Your task to perform on an android device: Go to ESPN.com Image 0: 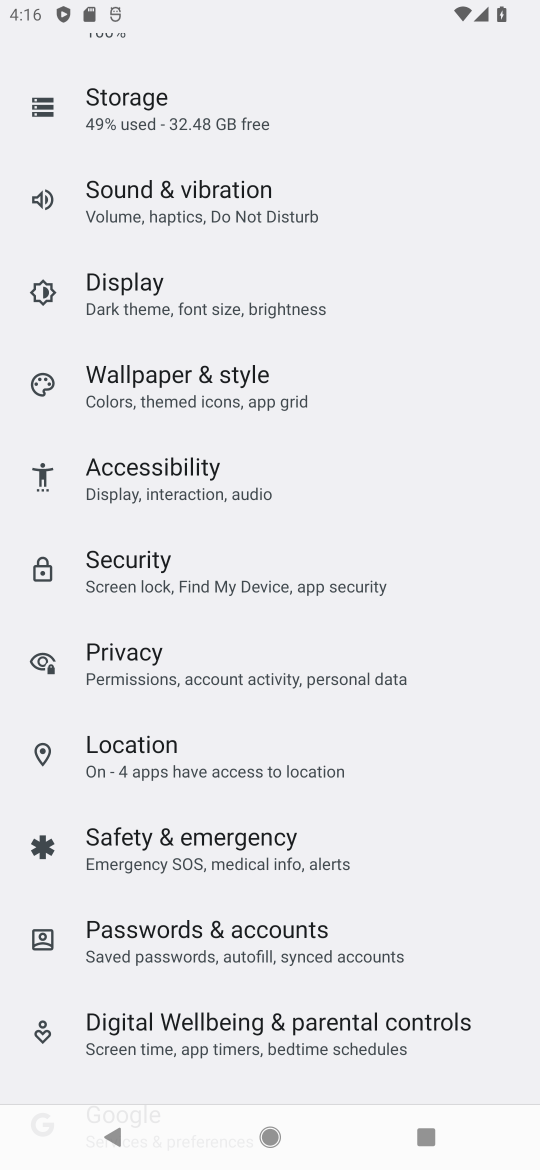
Step 0: press home button
Your task to perform on an android device: Go to ESPN.com Image 1: 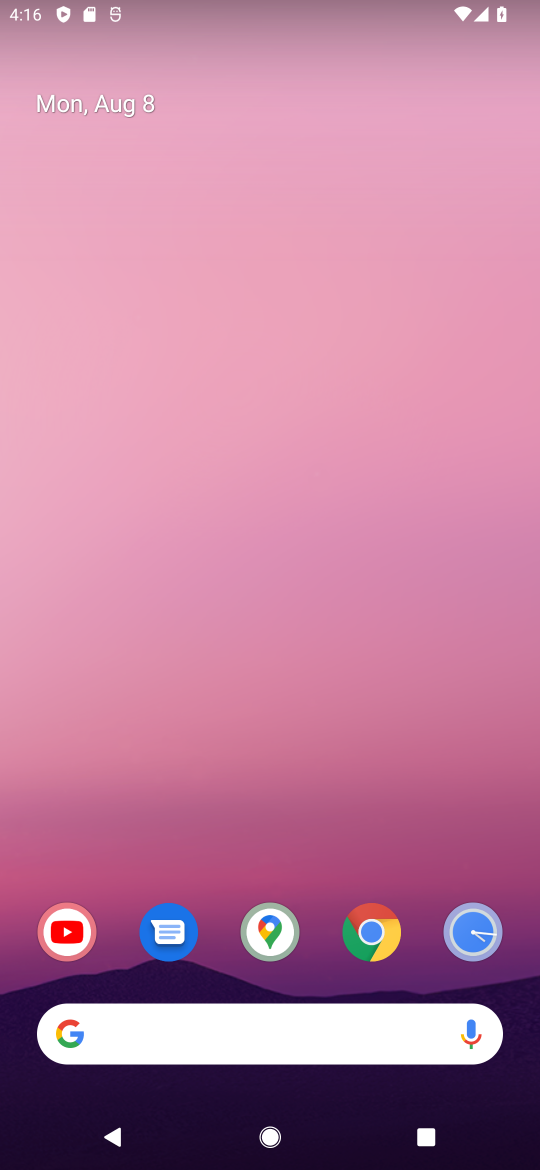
Step 1: click (294, 1040)
Your task to perform on an android device: Go to ESPN.com Image 2: 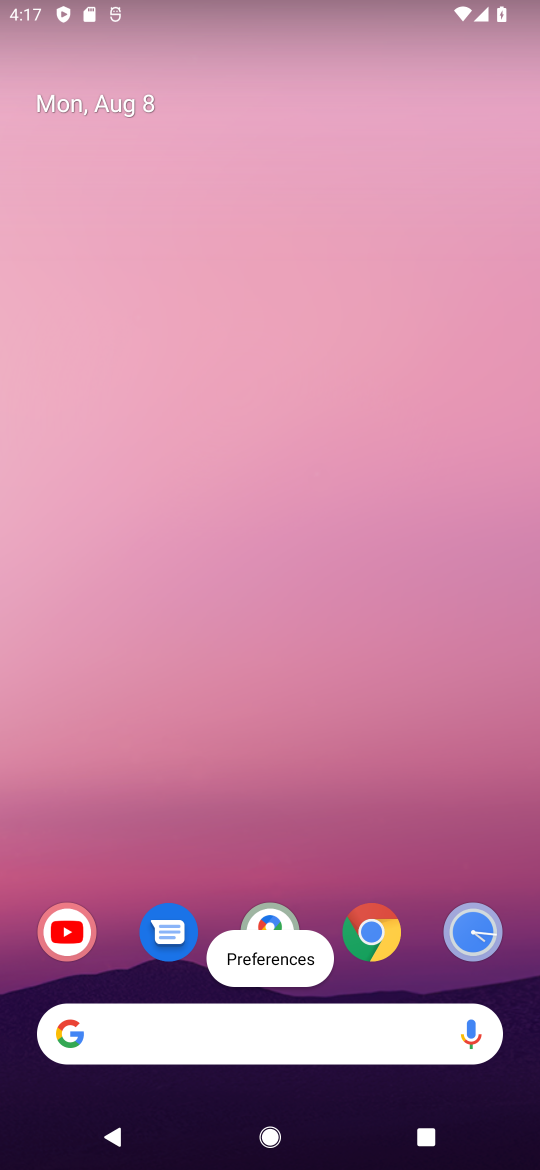
Step 2: click (222, 1032)
Your task to perform on an android device: Go to ESPN.com Image 3: 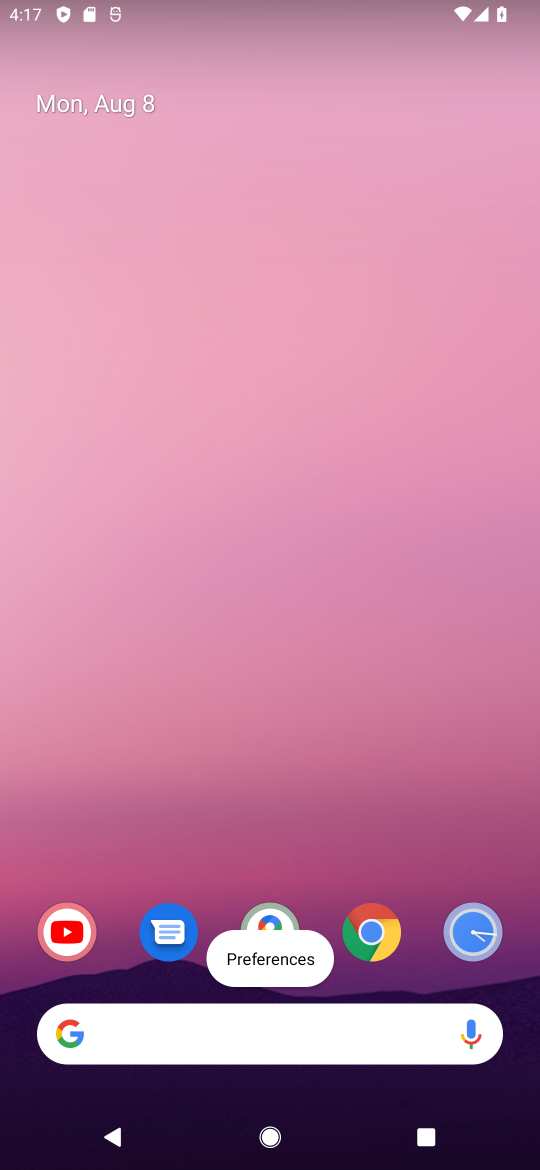
Step 3: drag from (247, 1050) to (285, 2)
Your task to perform on an android device: Go to ESPN.com Image 4: 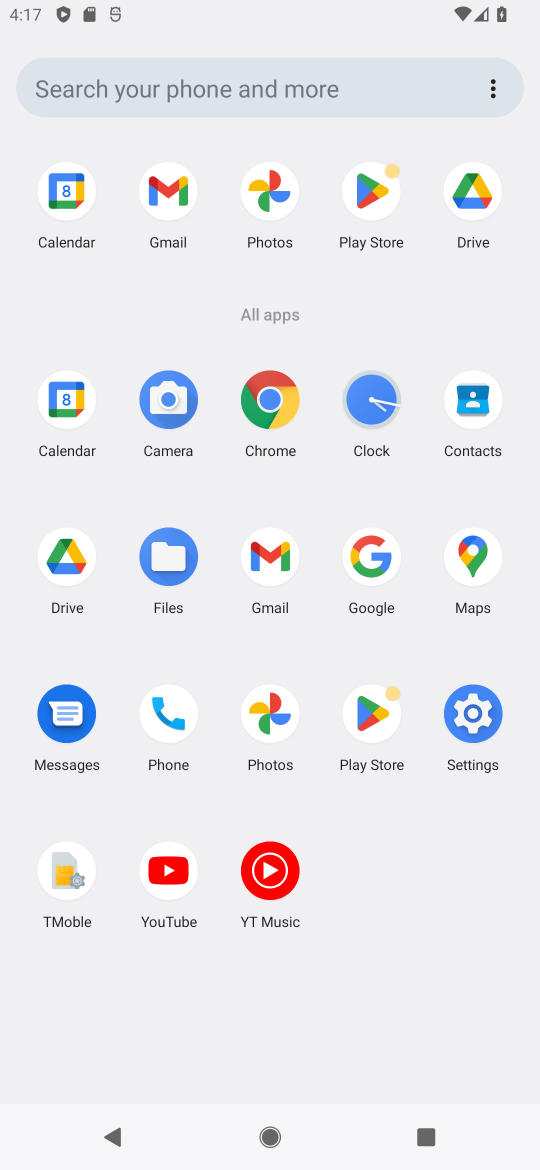
Step 4: type "espn.com"
Your task to perform on an android device: Go to ESPN.com Image 5: 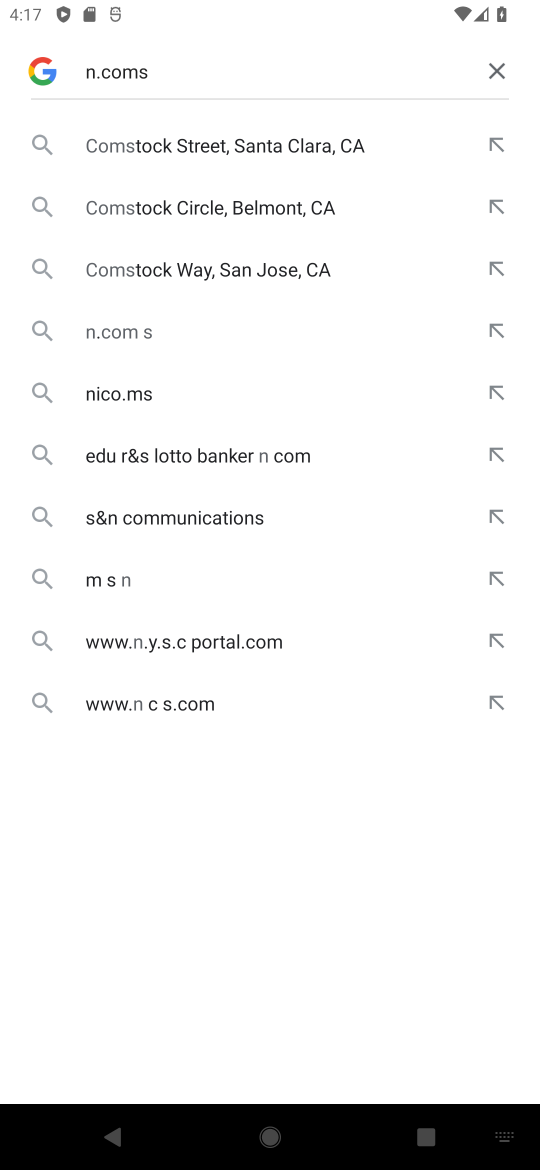
Step 5: click (481, 66)
Your task to perform on an android device: Go to ESPN.com Image 6: 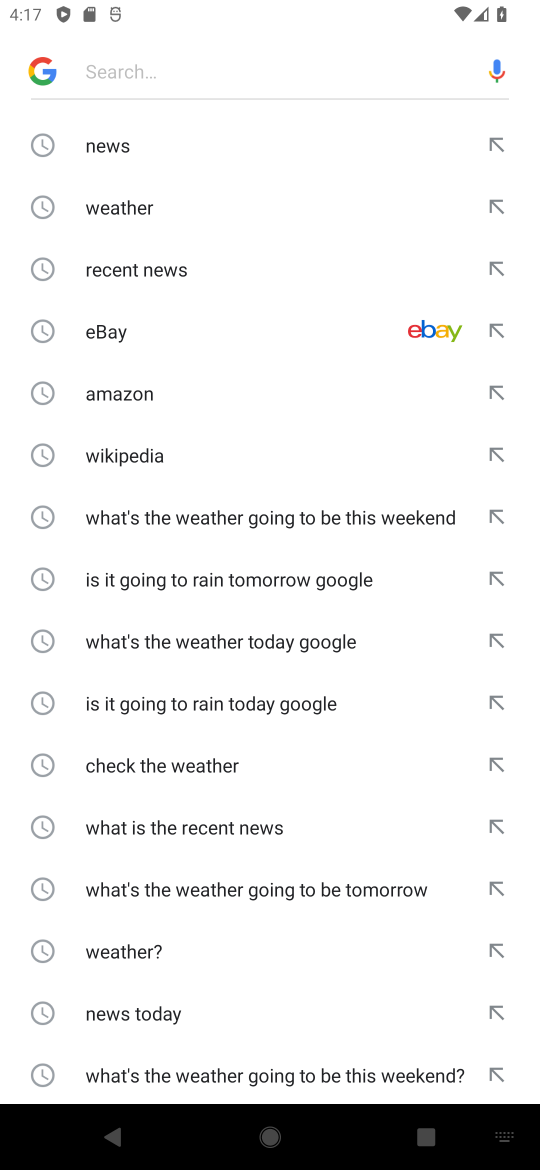
Step 6: type "espn.com"
Your task to perform on an android device: Go to ESPN.com Image 7: 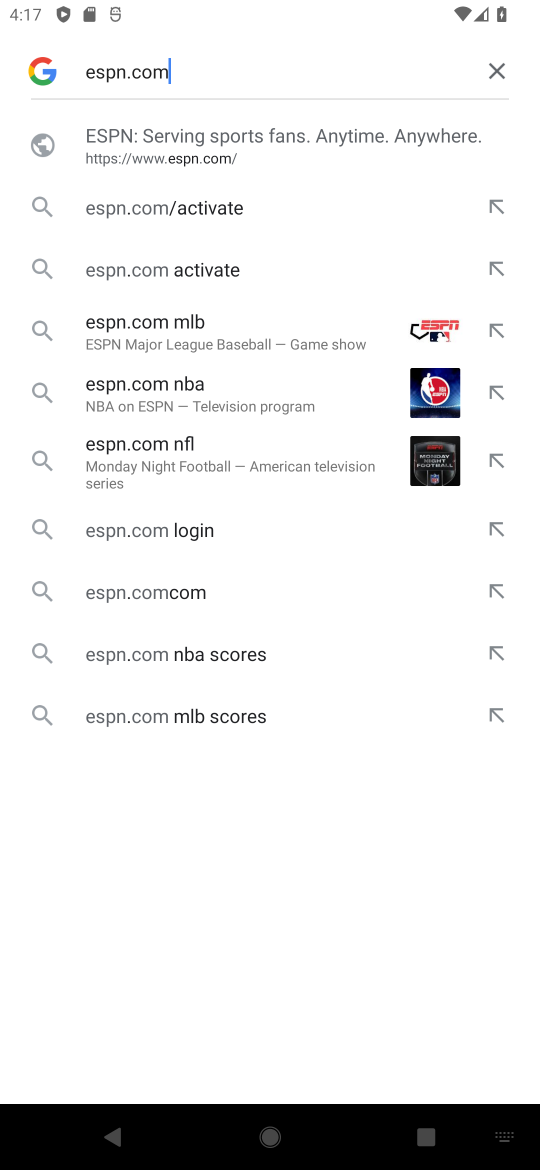
Step 7: click (372, 122)
Your task to perform on an android device: Go to ESPN.com Image 8: 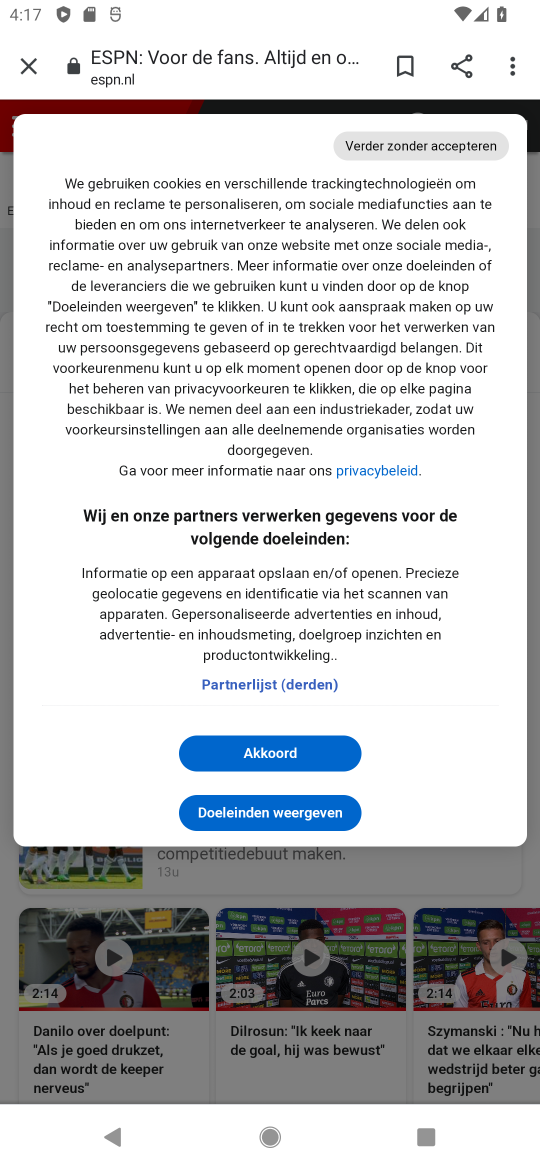
Step 8: task complete